Your task to perform on an android device: Go to notification settings Image 0: 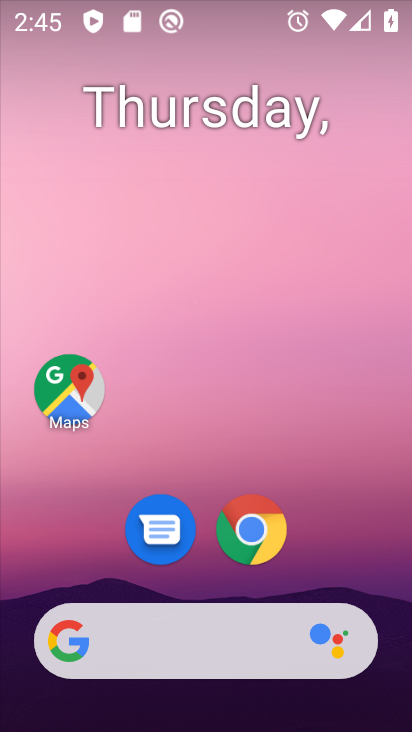
Step 0: drag from (290, 717) to (247, 58)
Your task to perform on an android device: Go to notification settings Image 1: 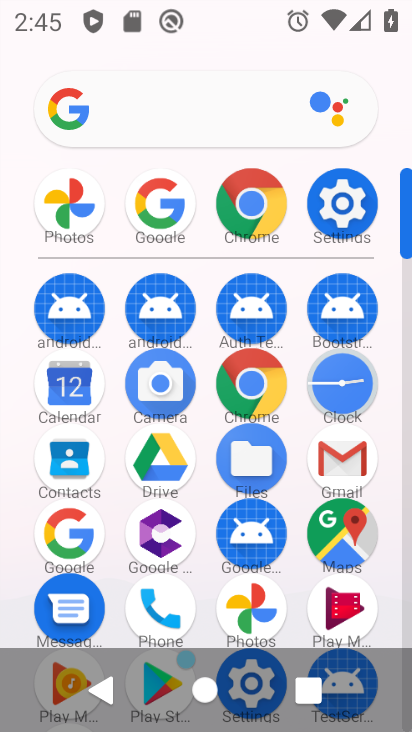
Step 1: click (330, 199)
Your task to perform on an android device: Go to notification settings Image 2: 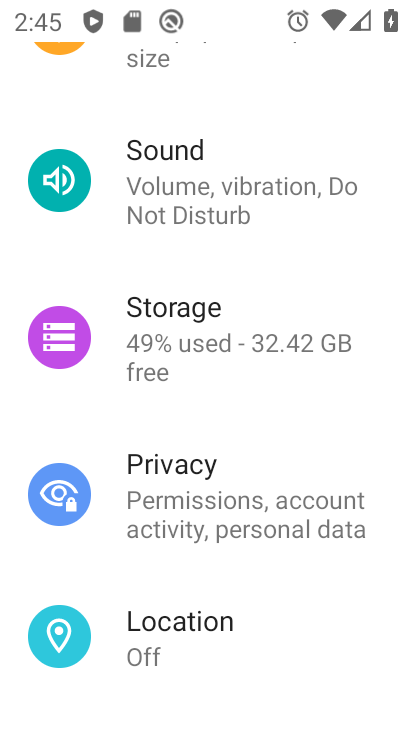
Step 2: drag from (300, 119) to (238, 528)
Your task to perform on an android device: Go to notification settings Image 3: 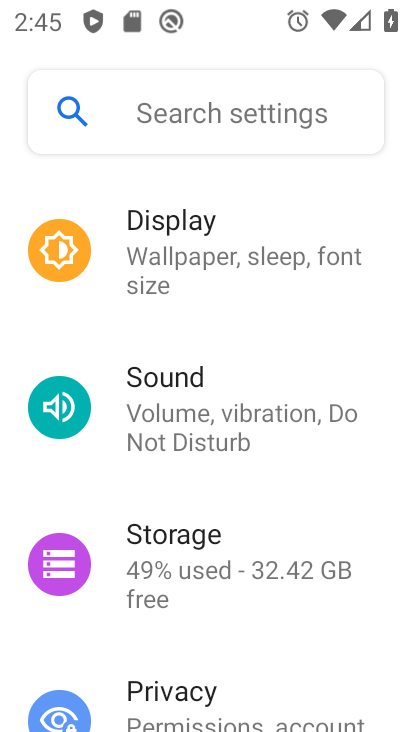
Step 3: drag from (249, 232) to (287, 715)
Your task to perform on an android device: Go to notification settings Image 4: 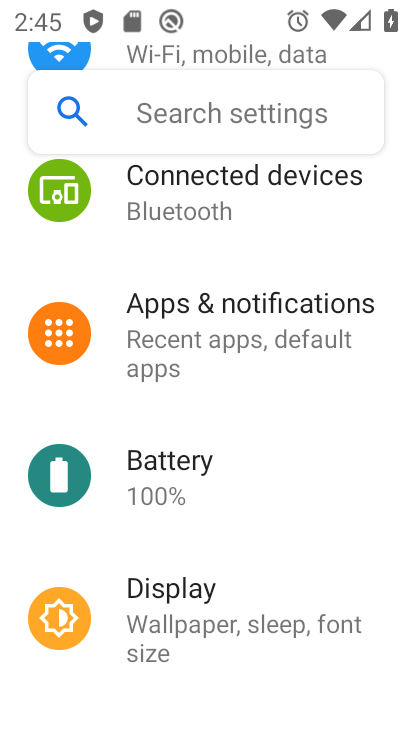
Step 4: click (296, 331)
Your task to perform on an android device: Go to notification settings Image 5: 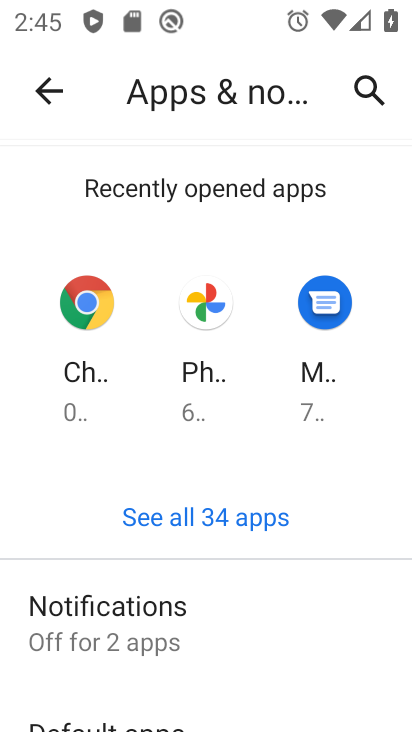
Step 5: task complete